Your task to perform on an android device: check out phone information Image 0: 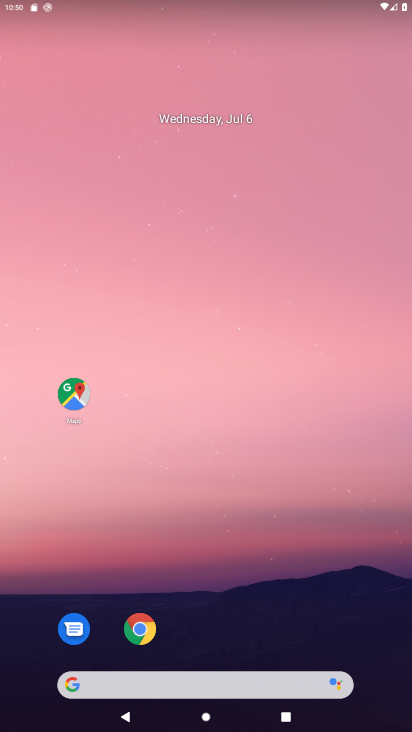
Step 0: press home button
Your task to perform on an android device: check out phone information Image 1: 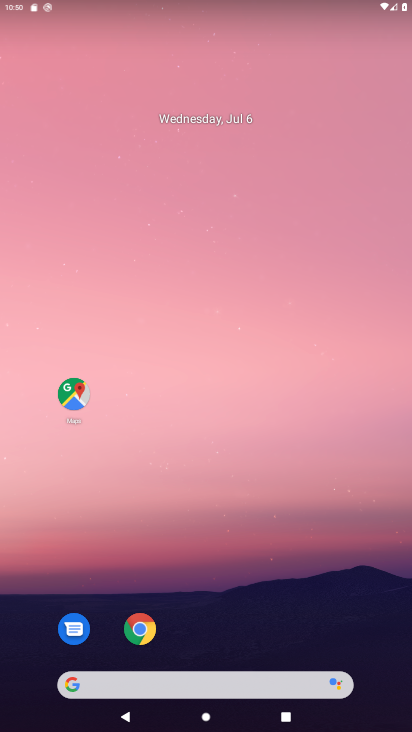
Step 1: drag from (218, 655) to (237, 81)
Your task to perform on an android device: check out phone information Image 2: 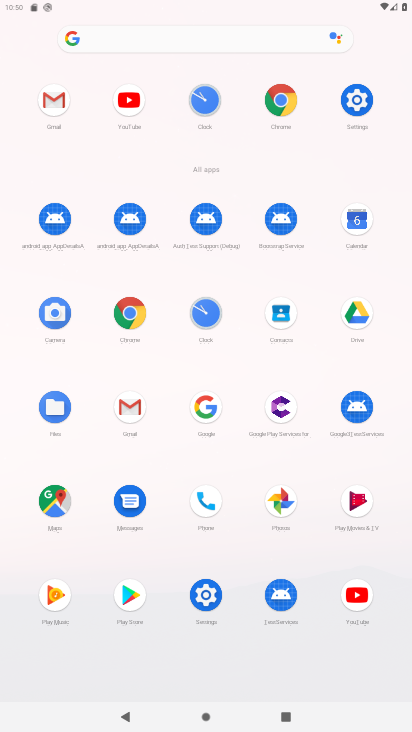
Step 2: click (356, 91)
Your task to perform on an android device: check out phone information Image 3: 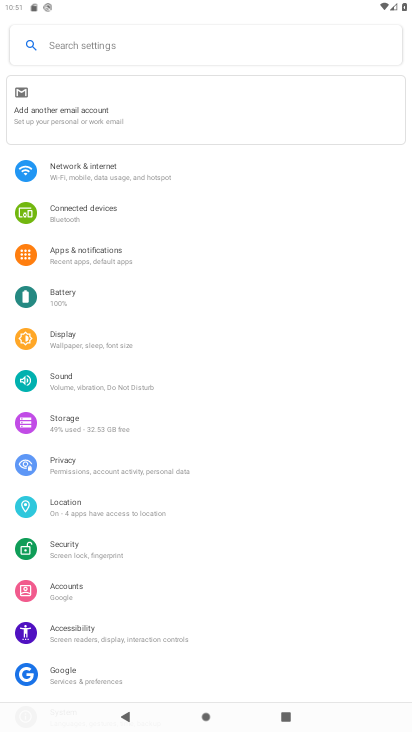
Step 3: drag from (142, 652) to (152, 134)
Your task to perform on an android device: check out phone information Image 4: 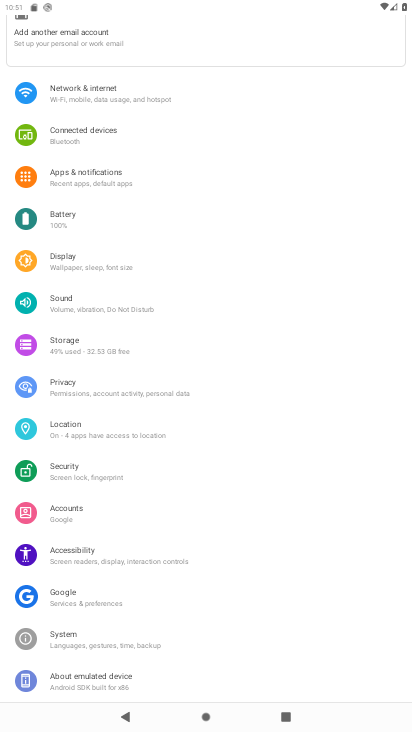
Step 4: click (141, 678)
Your task to perform on an android device: check out phone information Image 5: 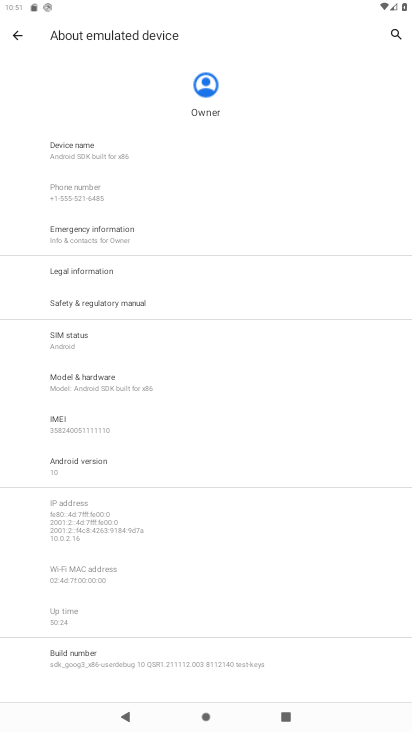
Step 5: task complete